Your task to perform on an android device: Go to accessibility settings Image 0: 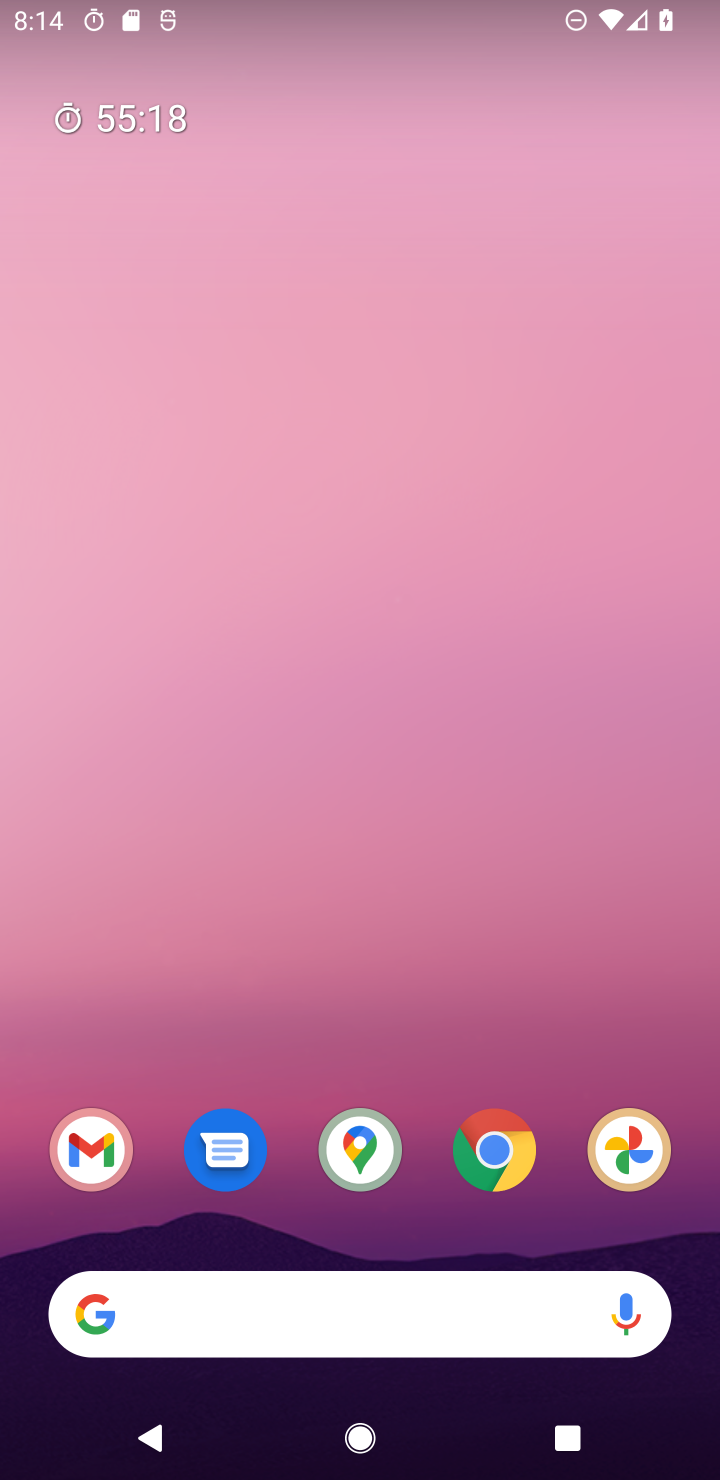
Step 0: drag from (351, 1205) to (478, 20)
Your task to perform on an android device: Go to accessibility settings Image 1: 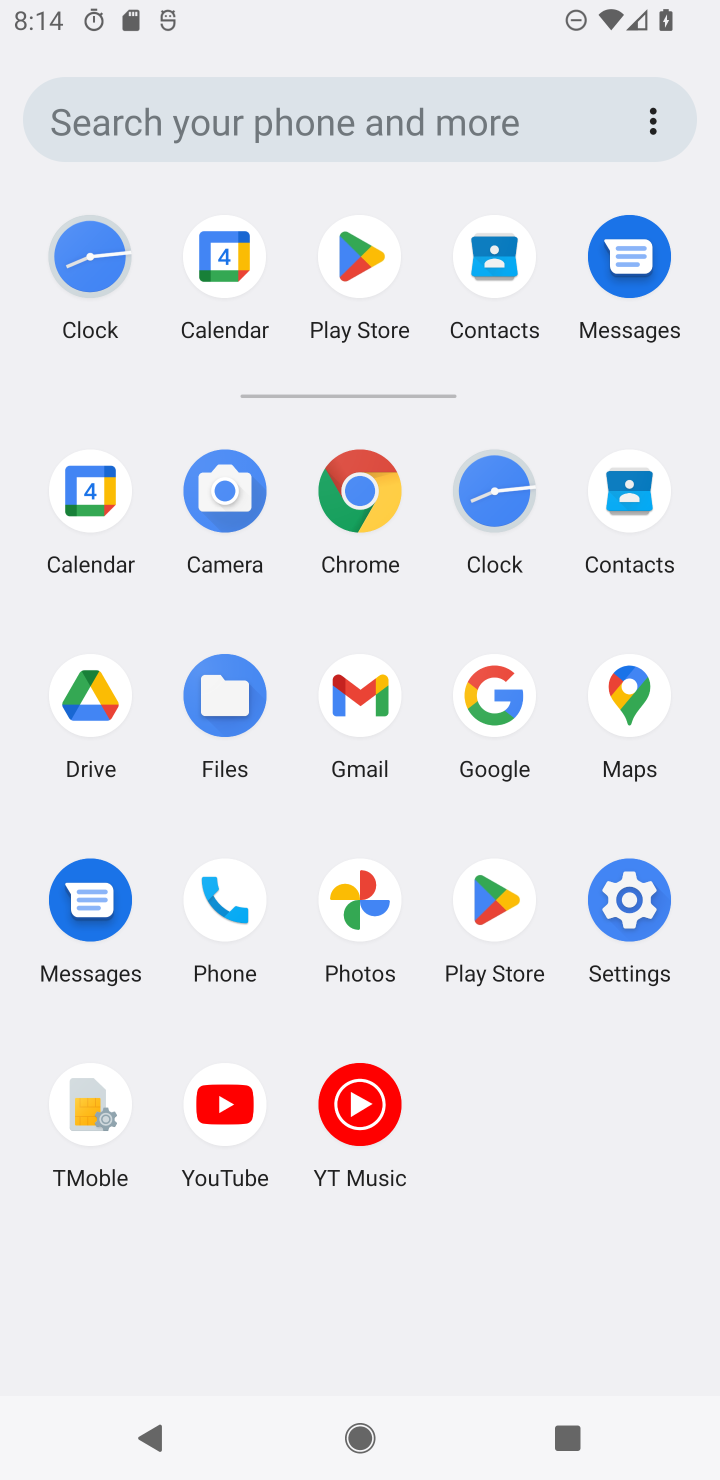
Step 1: click (624, 894)
Your task to perform on an android device: Go to accessibility settings Image 2: 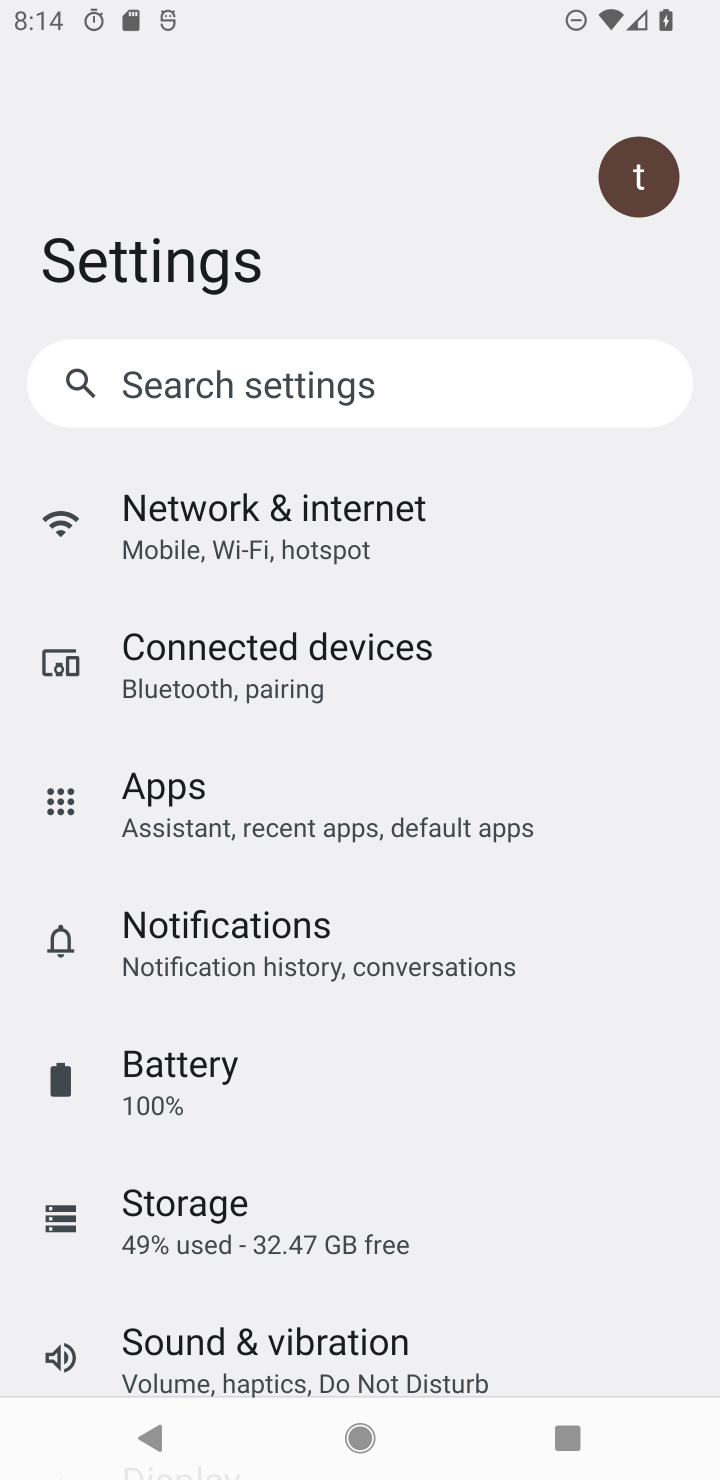
Step 2: drag from (404, 1301) to (560, 0)
Your task to perform on an android device: Go to accessibility settings Image 3: 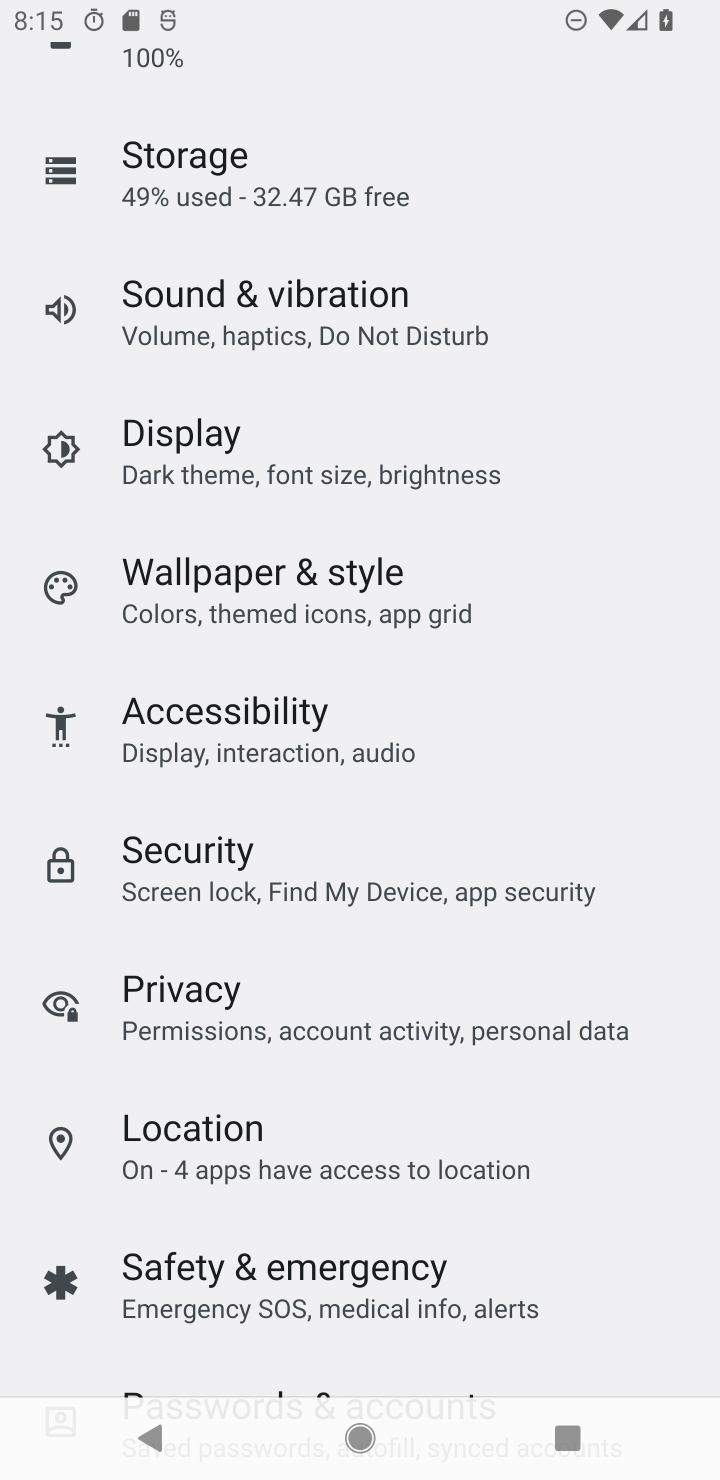
Step 3: drag from (415, 1310) to (428, 962)
Your task to perform on an android device: Go to accessibility settings Image 4: 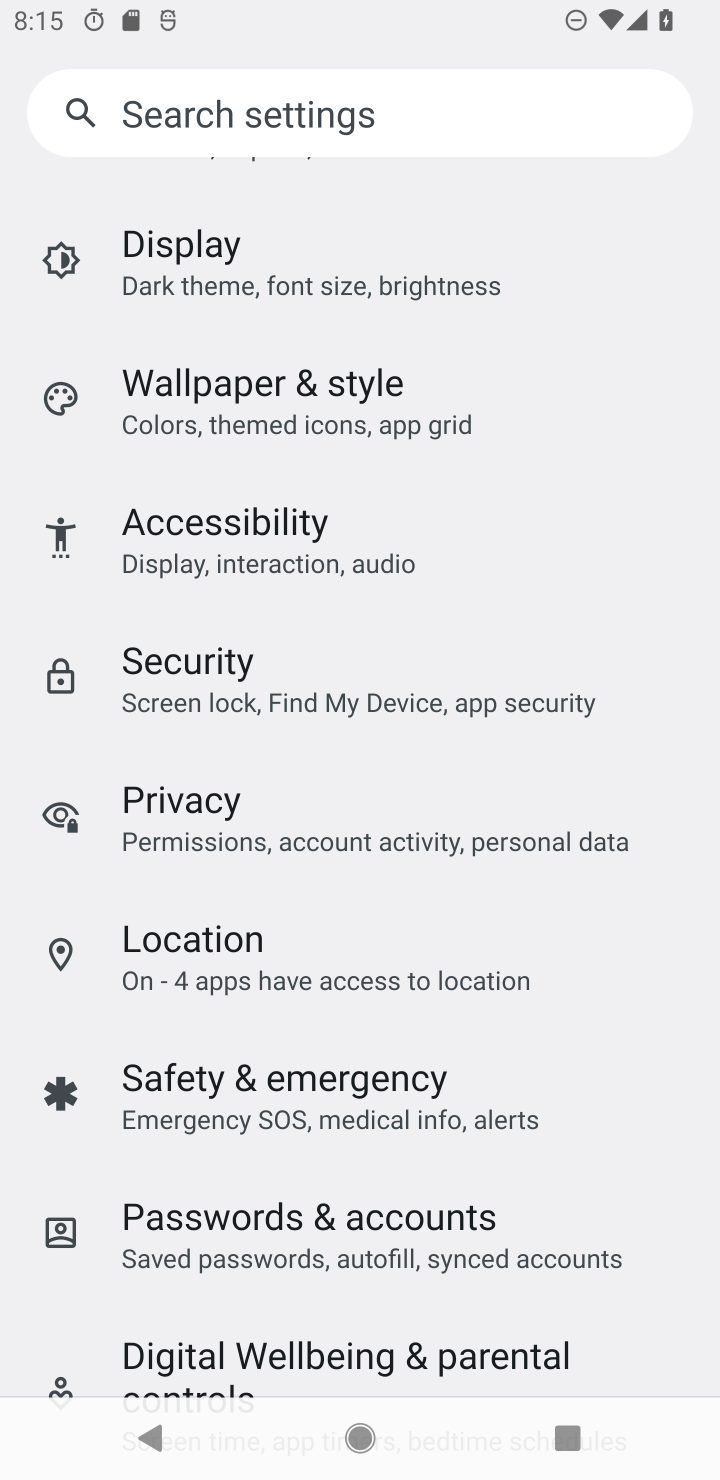
Step 4: click (351, 543)
Your task to perform on an android device: Go to accessibility settings Image 5: 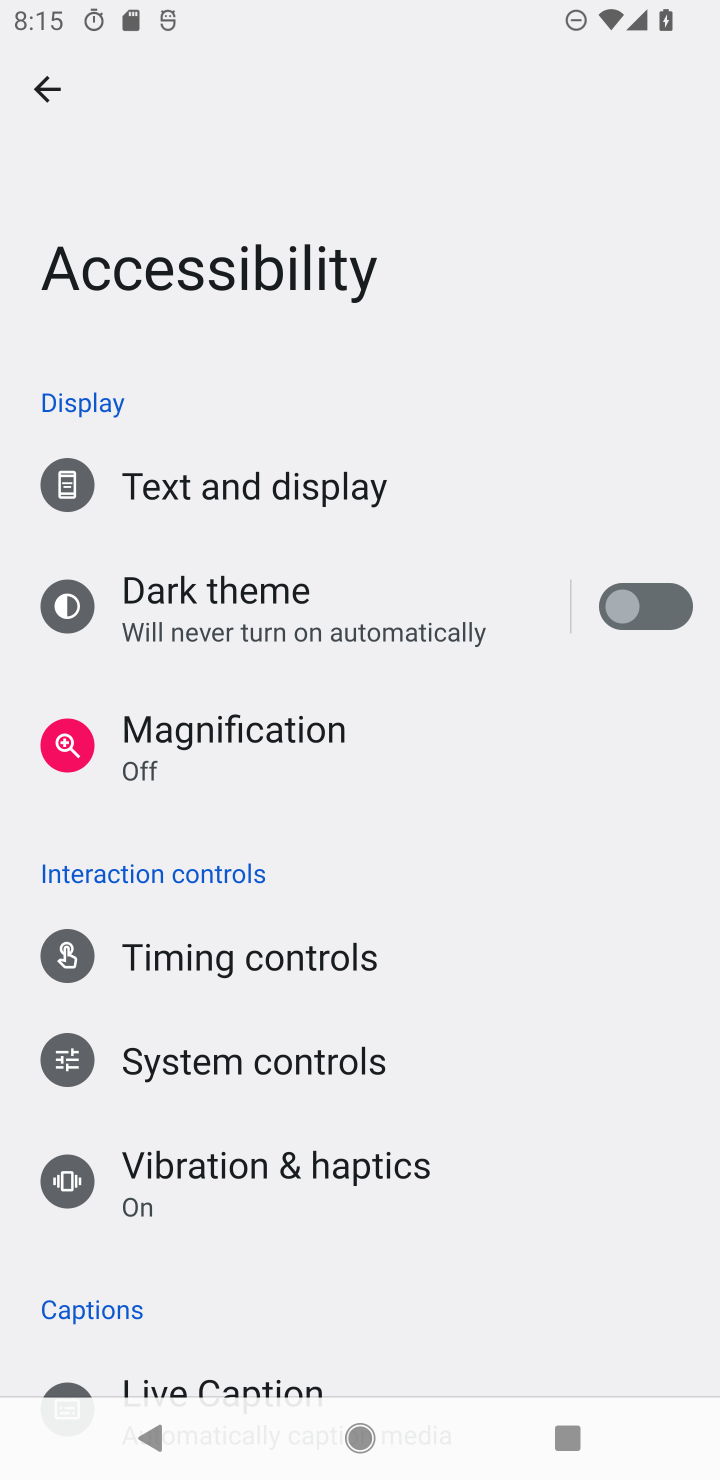
Step 5: task complete